Your task to perform on an android device: create a new album in the google photos Image 0: 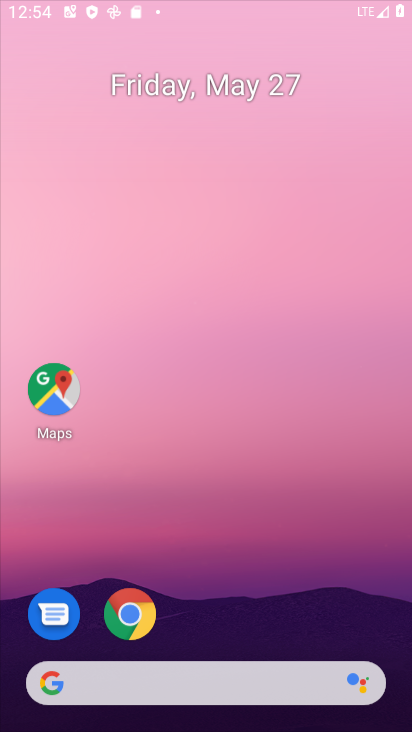
Step 0: drag from (291, 609) to (360, 106)
Your task to perform on an android device: create a new album in the google photos Image 1: 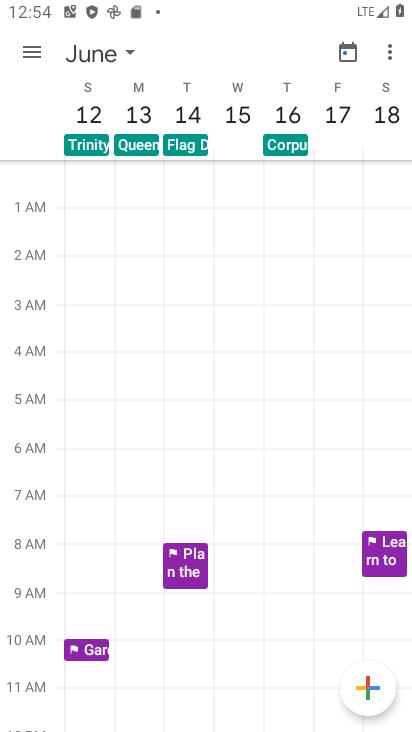
Step 1: press home button
Your task to perform on an android device: create a new album in the google photos Image 2: 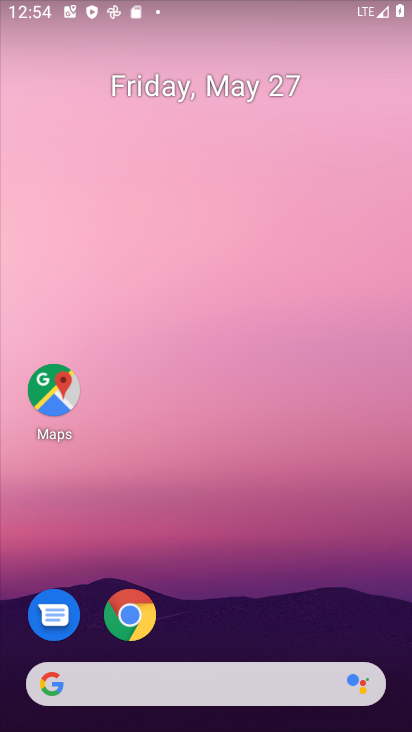
Step 2: drag from (302, 677) to (402, 58)
Your task to perform on an android device: create a new album in the google photos Image 3: 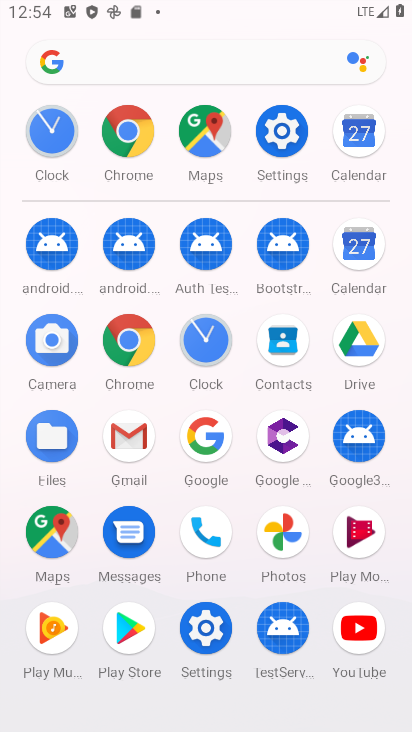
Step 3: click (294, 534)
Your task to perform on an android device: create a new album in the google photos Image 4: 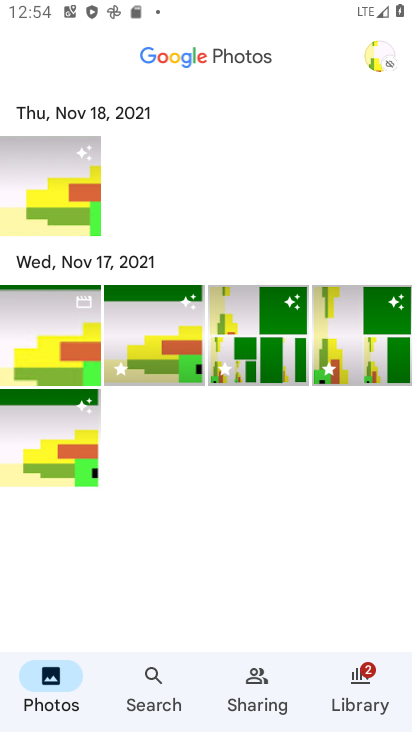
Step 4: press home button
Your task to perform on an android device: create a new album in the google photos Image 5: 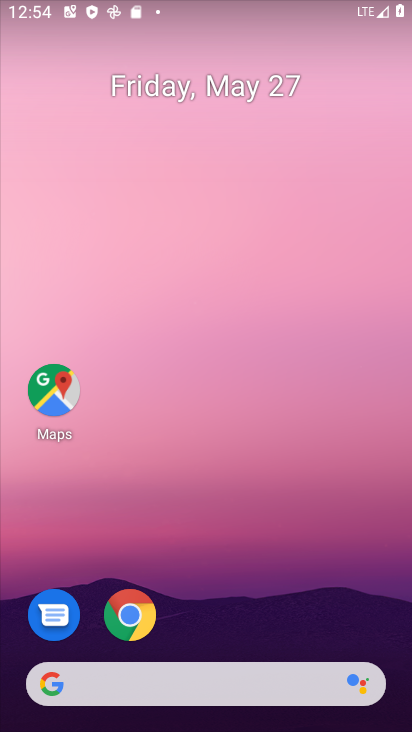
Step 5: drag from (295, 663) to (325, 24)
Your task to perform on an android device: create a new album in the google photos Image 6: 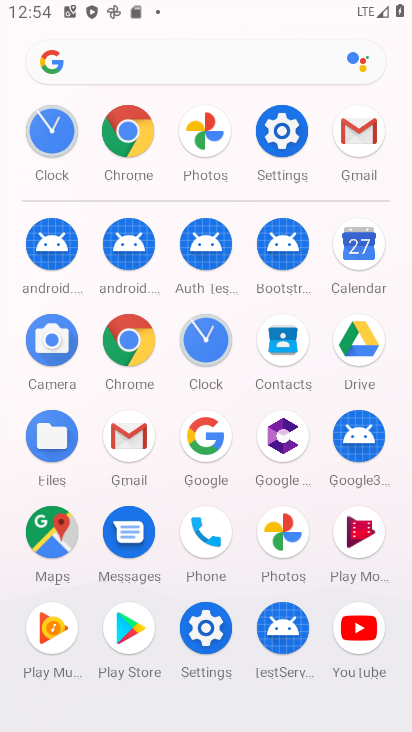
Step 6: click (292, 535)
Your task to perform on an android device: create a new album in the google photos Image 7: 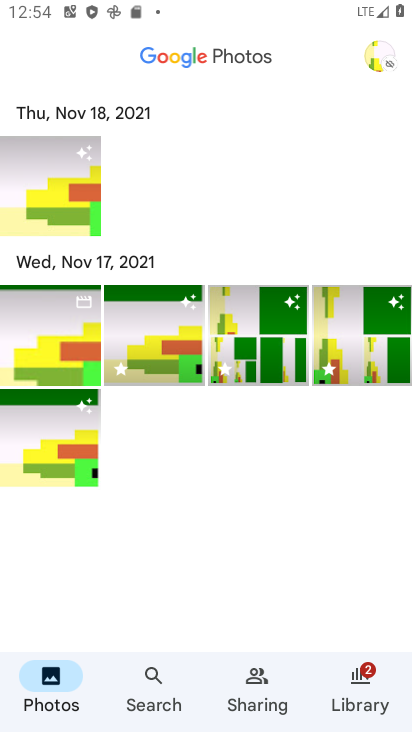
Step 7: click (389, 66)
Your task to perform on an android device: create a new album in the google photos Image 8: 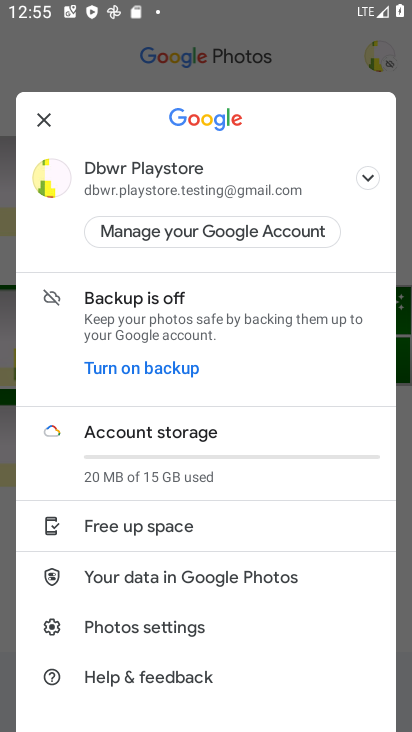
Step 8: click (46, 115)
Your task to perform on an android device: create a new album in the google photos Image 9: 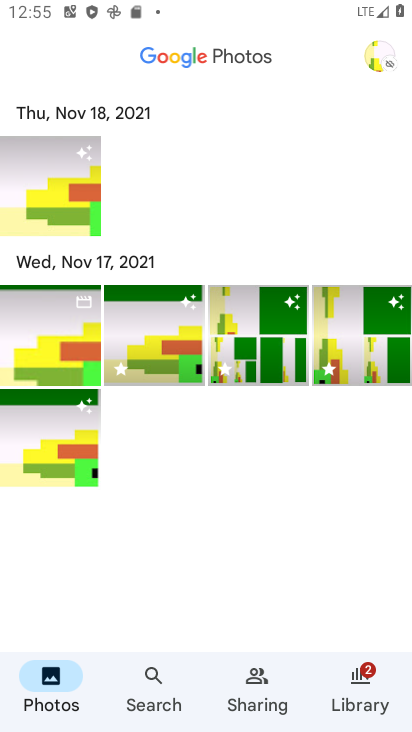
Step 9: click (357, 688)
Your task to perform on an android device: create a new album in the google photos Image 10: 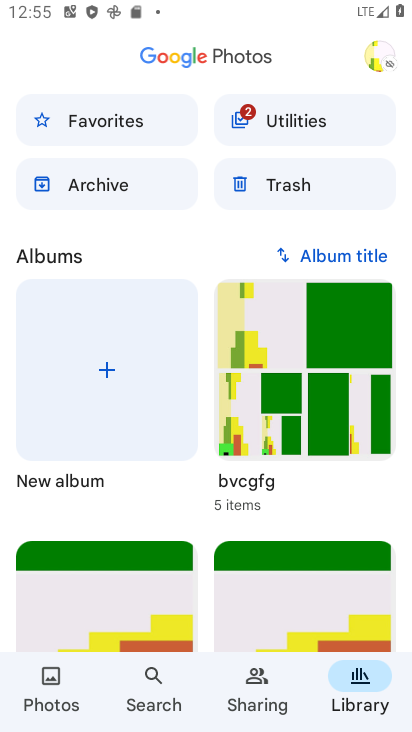
Step 10: click (98, 370)
Your task to perform on an android device: create a new album in the google photos Image 11: 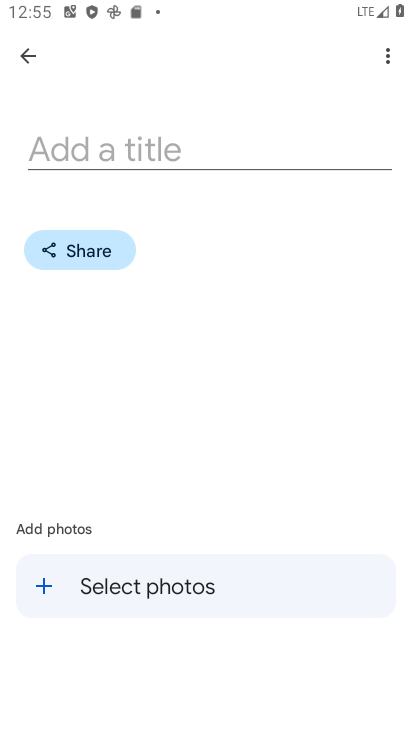
Step 11: click (183, 147)
Your task to perform on an android device: create a new album in the google photos Image 12: 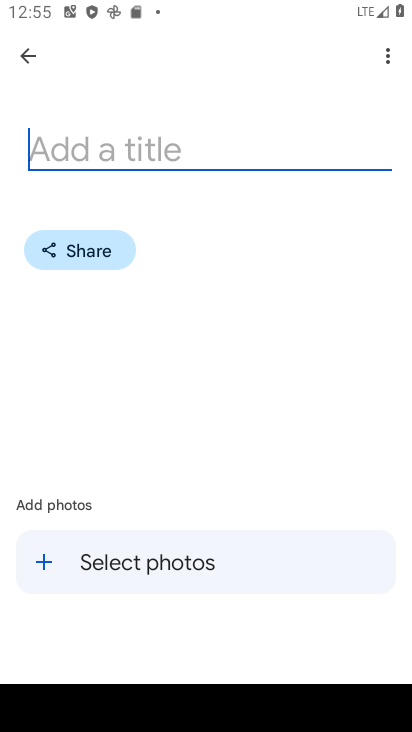
Step 12: type "jhjgjhiukhk"
Your task to perform on an android device: create a new album in the google photos Image 13: 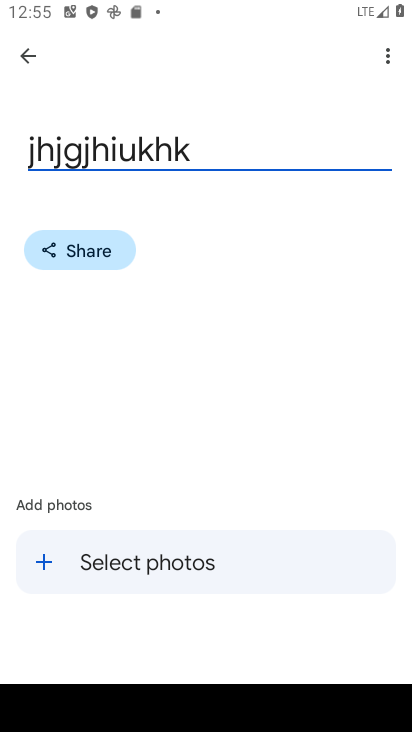
Step 13: click (54, 561)
Your task to perform on an android device: create a new album in the google photos Image 14: 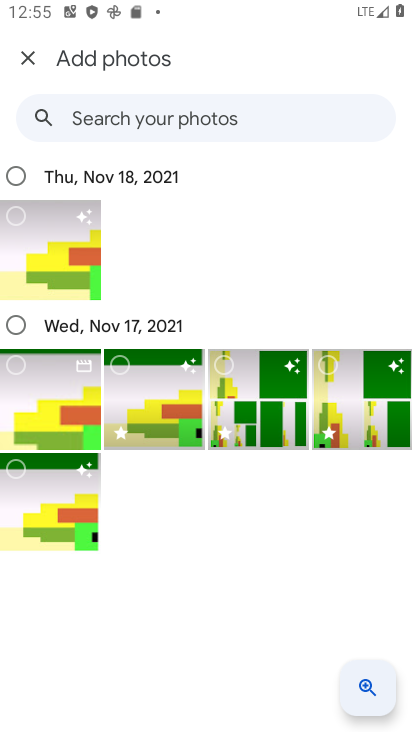
Step 14: click (34, 249)
Your task to perform on an android device: create a new album in the google photos Image 15: 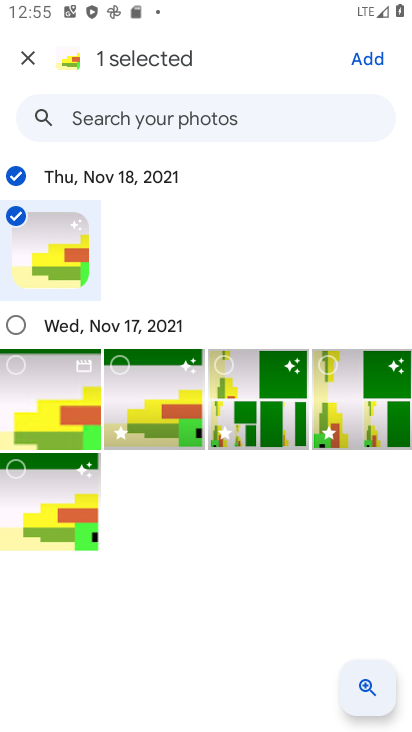
Step 15: click (363, 55)
Your task to perform on an android device: create a new album in the google photos Image 16: 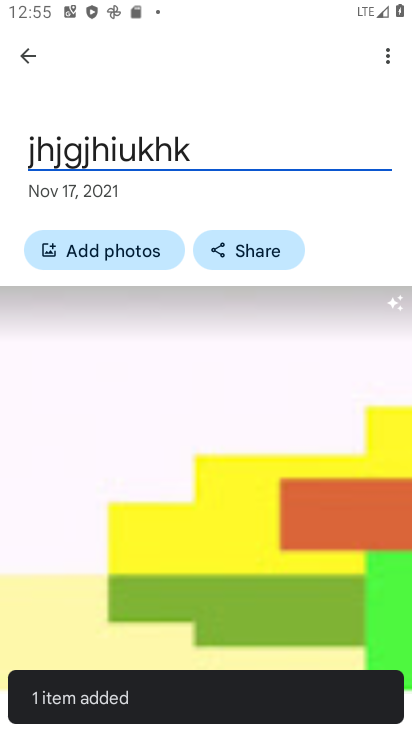
Step 16: task complete